Your task to perform on an android device: Go to Android settings Image 0: 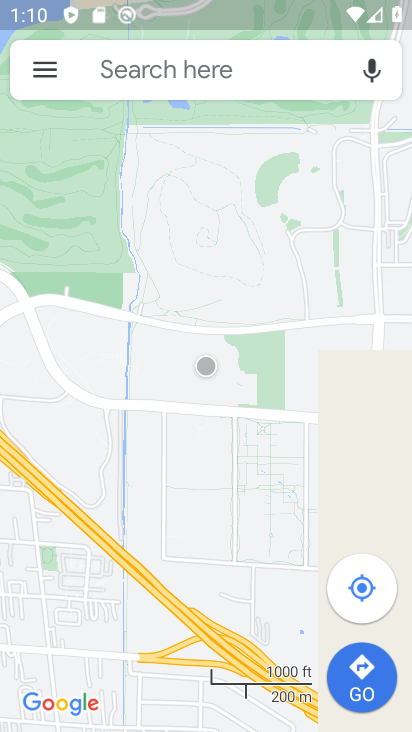
Step 0: press home button
Your task to perform on an android device: Go to Android settings Image 1: 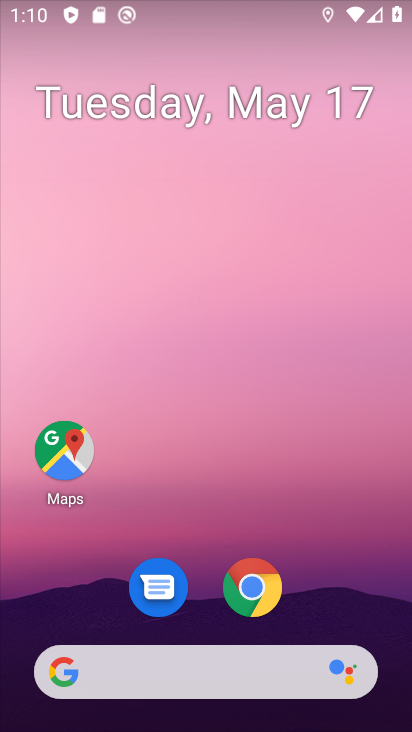
Step 1: drag from (362, 624) to (377, 234)
Your task to perform on an android device: Go to Android settings Image 2: 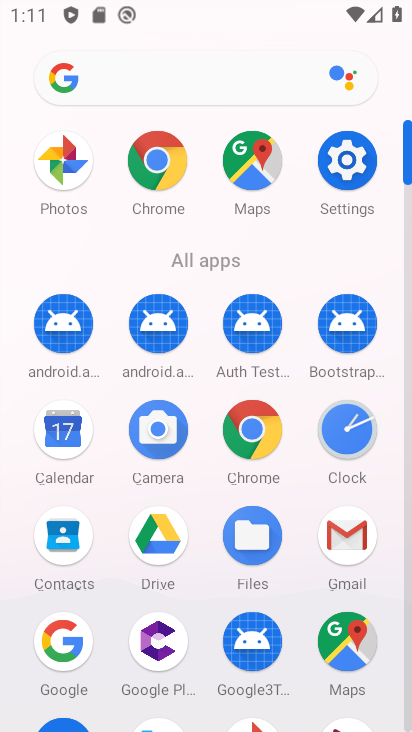
Step 2: click (358, 174)
Your task to perform on an android device: Go to Android settings Image 3: 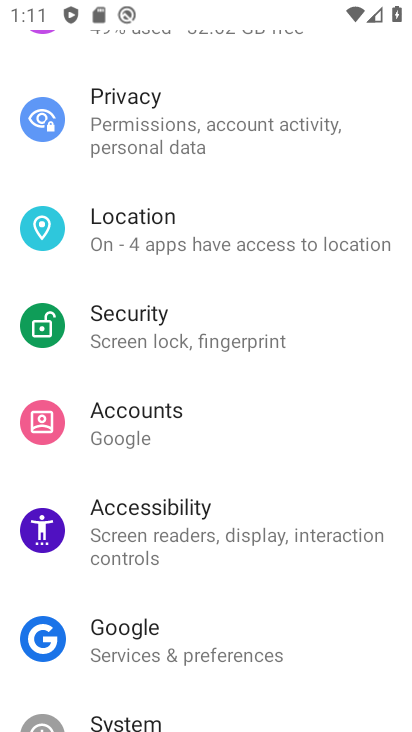
Step 3: drag from (338, 637) to (323, 278)
Your task to perform on an android device: Go to Android settings Image 4: 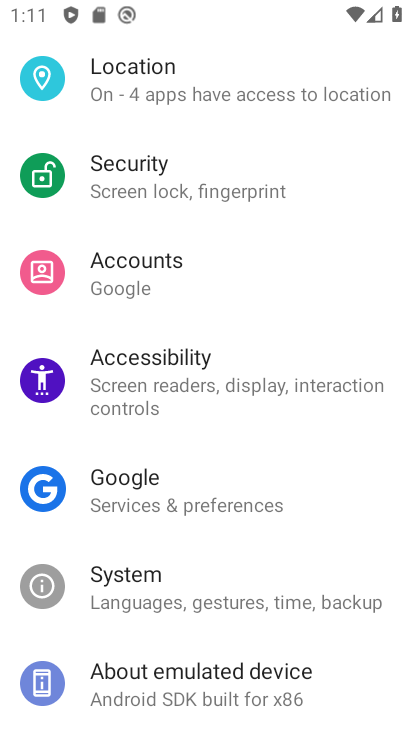
Step 4: drag from (311, 616) to (321, 254)
Your task to perform on an android device: Go to Android settings Image 5: 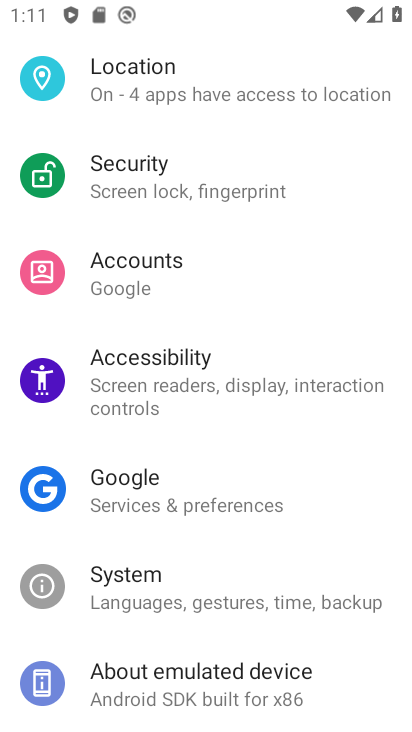
Step 5: click (237, 662)
Your task to perform on an android device: Go to Android settings Image 6: 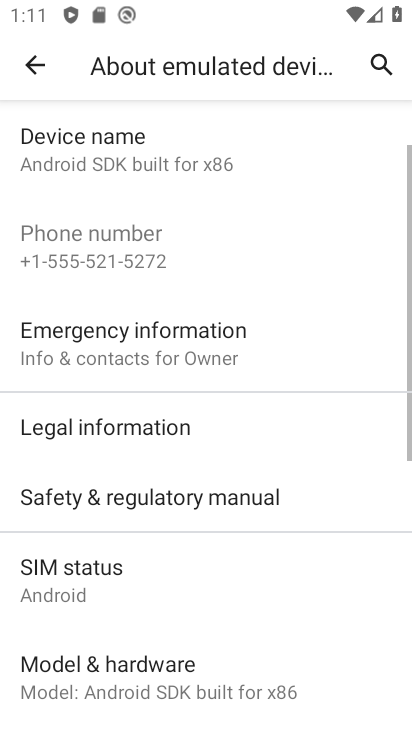
Step 6: drag from (291, 632) to (300, 316)
Your task to perform on an android device: Go to Android settings Image 7: 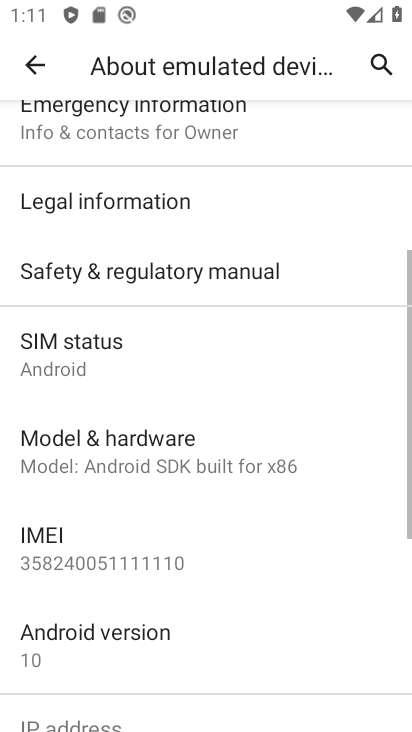
Step 7: click (202, 633)
Your task to perform on an android device: Go to Android settings Image 8: 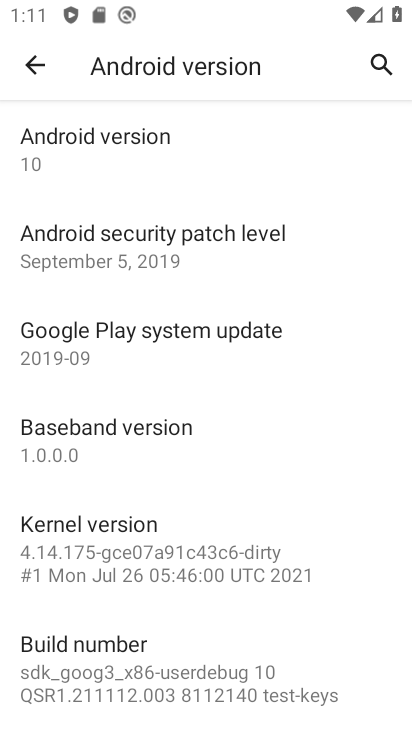
Step 8: task complete